Your task to perform on an android device: Show me productivity apps on the Play Store Image 0: 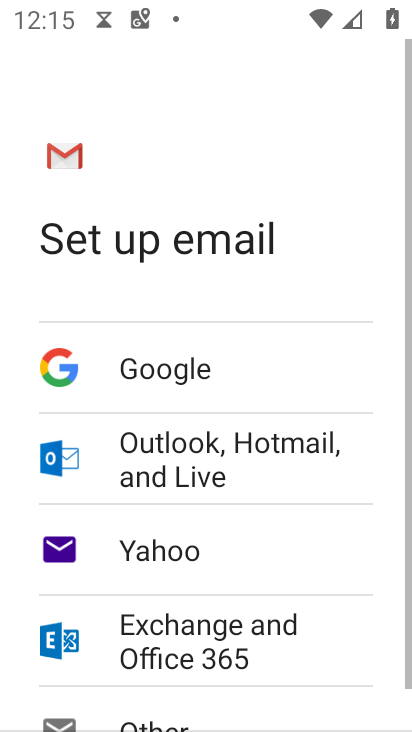
Step 0: press home button
Your task to perform on an android device: Show me productivity apps on the Play Store Image 1: 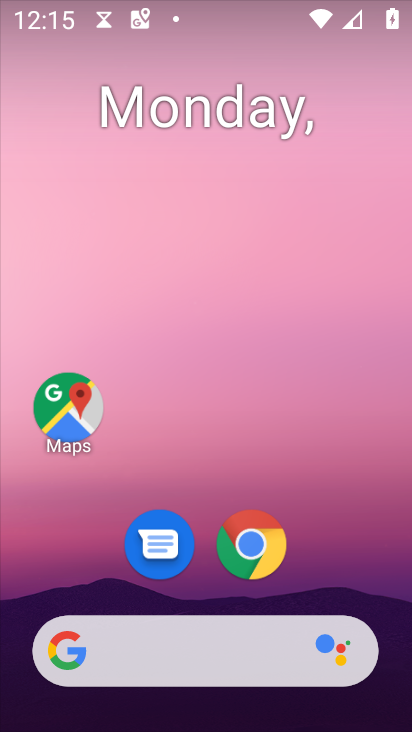
Step 1: drag from (305, 499) to (283, 294)
Your task to perform on an android device: Show me productivity apps on the Play Store Image 2: 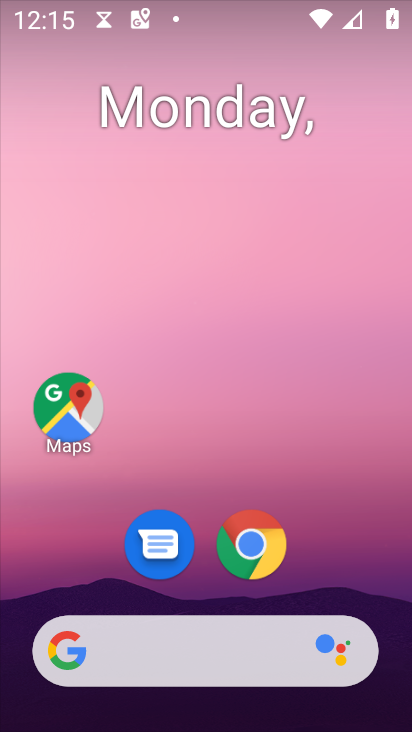
Step 2: drag from (317, 519) to (337, 294)
Your task to perform on an android device: Show me productivity apps on the Play Store Image 3: 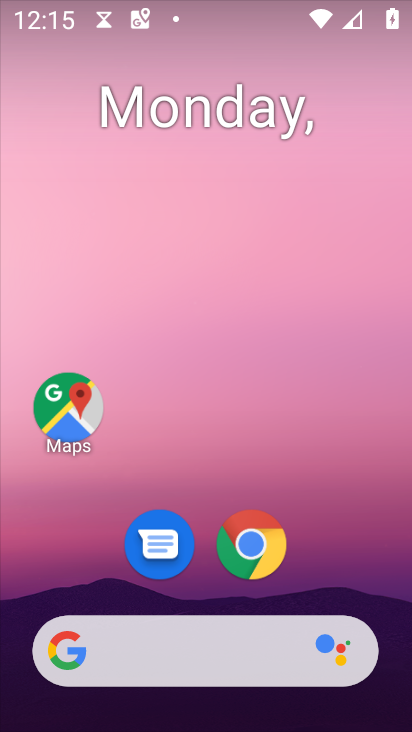
Step 3: drag from (387, 306) to (379, 266)
Your task to perform on an android device: Show me productivity apps on the Play Store Image 4: 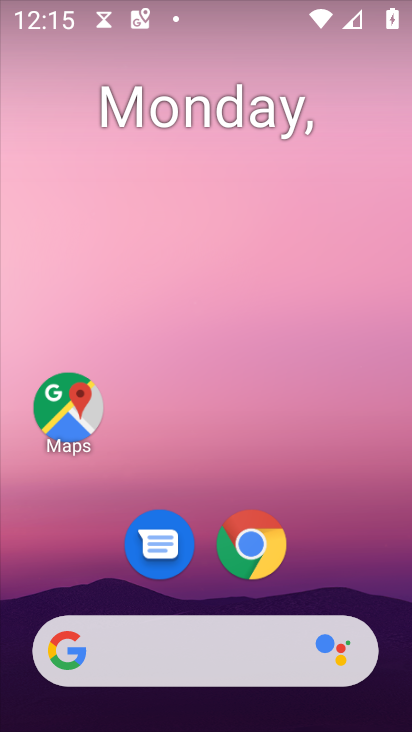
Step 4: drag from (209, 537) to (240, 199)
Your task to perform on an android device: Show me productivity apps on the Play Store Image 5: 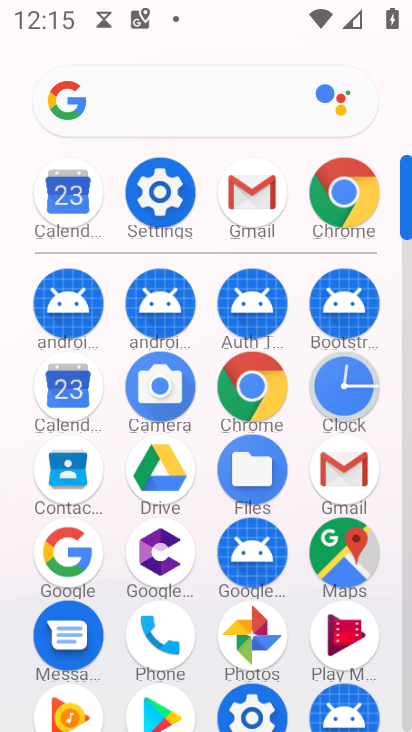
Step 5: drag from (297, 660) to (333, 446)
Your task to perform on an android device: Show me productivity apps on the Play Store Image 6: 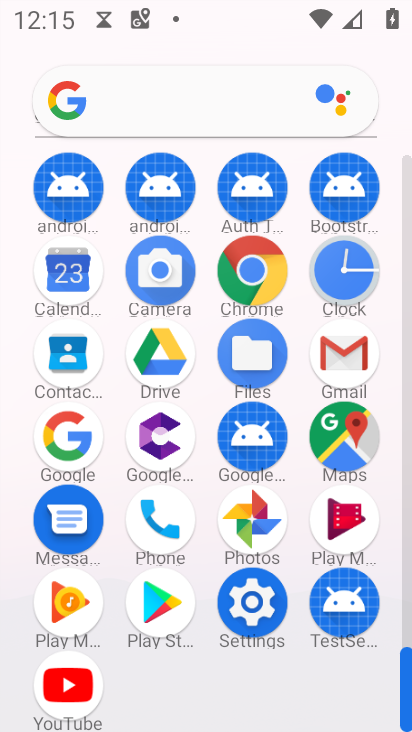
Step 6: click (135, 604)
Your task to perform on an android device: Show me productivity apps on the Play Store Image 7: 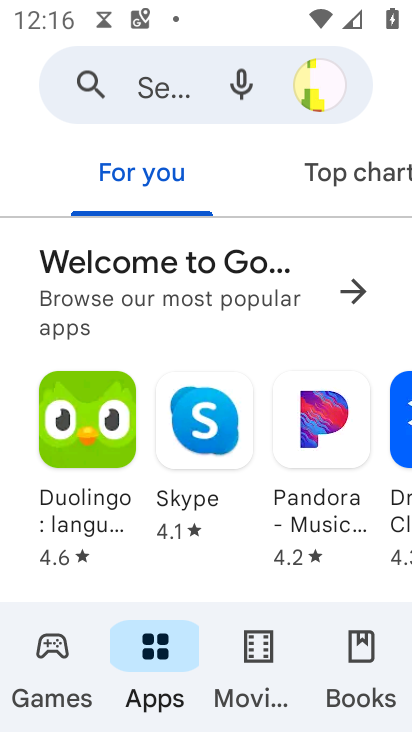
Step 7: task complete